Your task to perform on an android device: show emergency info Image 0: 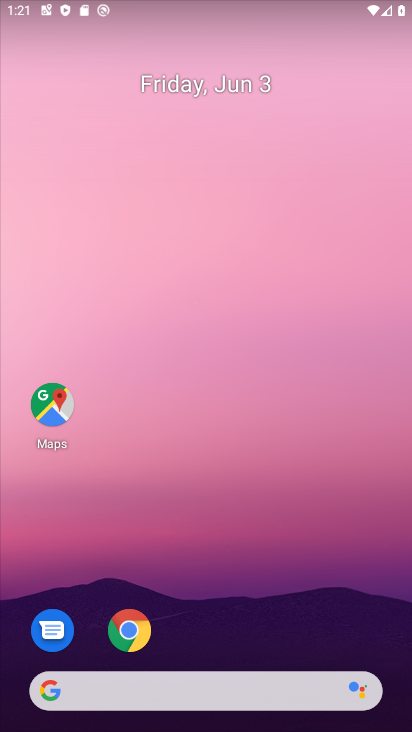
Step 0: drag from (244, 726) to (238, 137)
Your task to perform on an android device: show emergency info Image 1: 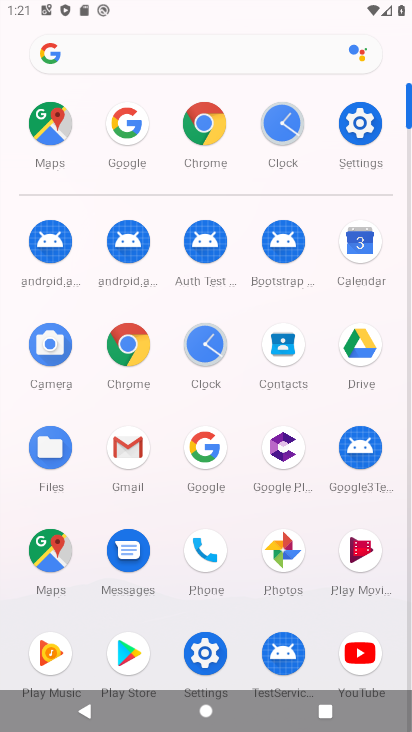
Step 1: click (361, 132)
Your task to perform on an android device: show emergency info Image 2: 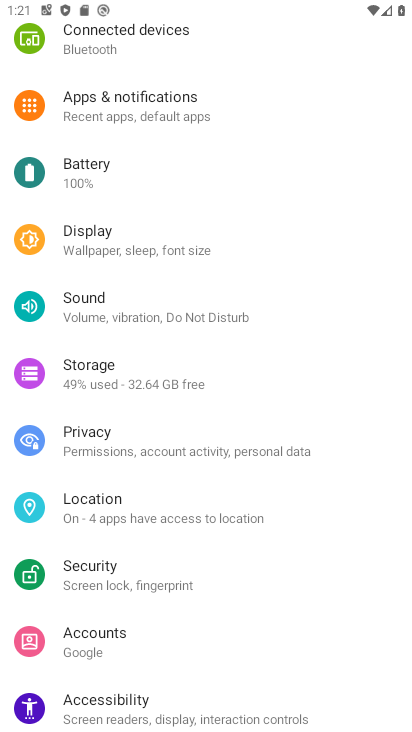
Step 2: drag from (96, 695) to (98, 249)
Your task to perform on an android device: show emergency info Image 3: 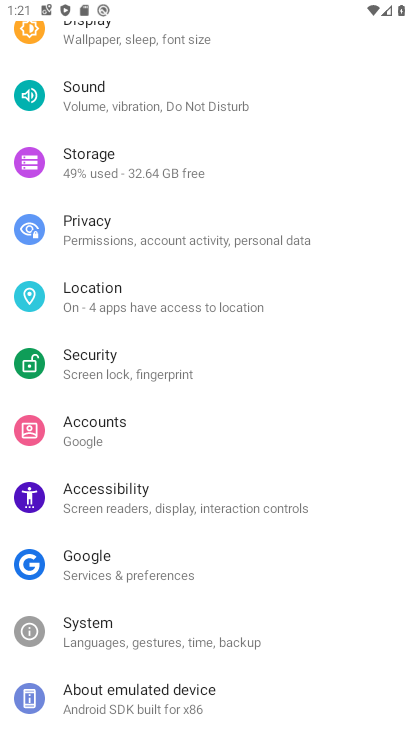
Step 3: drag from (143, 673) to (141, 339)
Your task to perform on an android device: show emergency info Image 4: 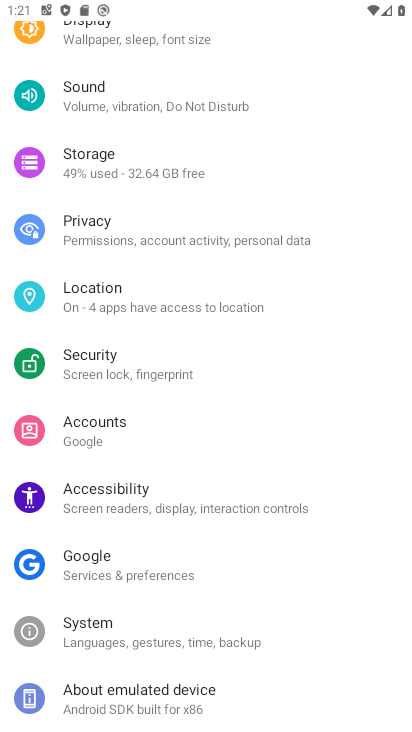
Step 4: click (149, 701)
Your task to perform on an android device: show emergency info Image 5: 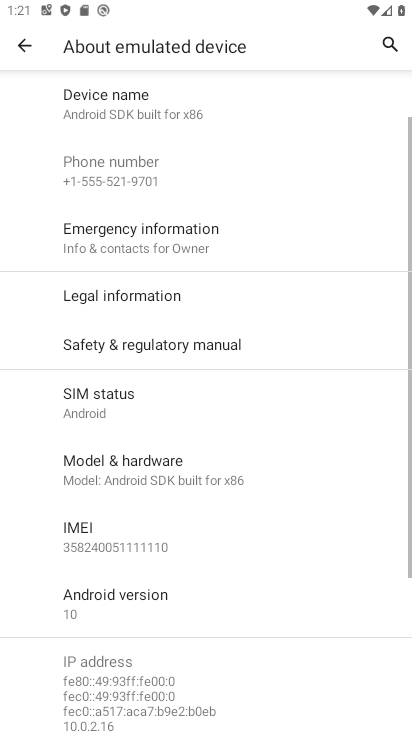
Step 5: click (150, 247)
Your task to perform on an android device: show emergency info Image 6: 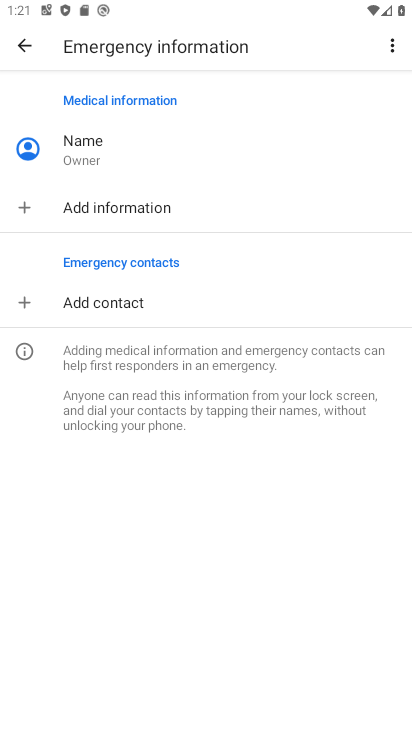
Step 6: task complete